Your task to perform on an android device: Open Chrome and go to the settings page Image 0: 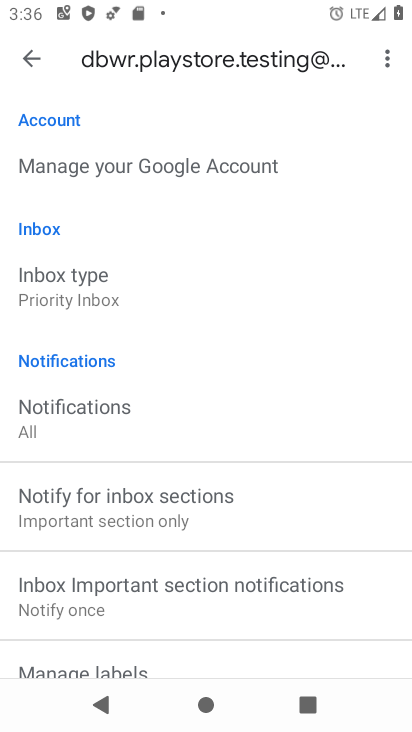
Step 0: press back button
Your task to perform on an android device: Open Chrome and go to the settings page Image 1: 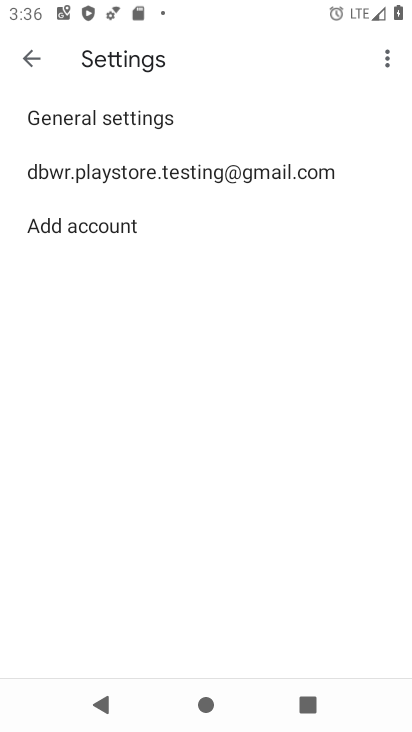
Step 1: press back button
Your task to perform on an android device: Open Chrome and go to the settings page Image 2: 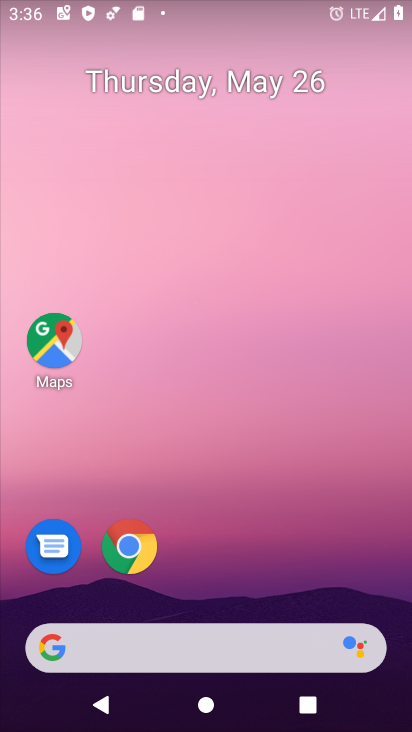
Step 2: drag from (284, 557) to (331, 85)
Your task to perform on an android device: Open Chrome and go to the settings page Image 3: 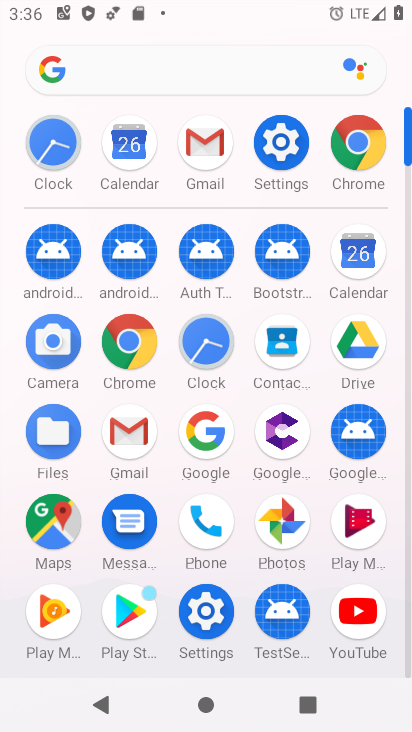
Step 3: click (287, 149)
Your task to perform on an android device: Open Chrome and go to the settings page Image 4: 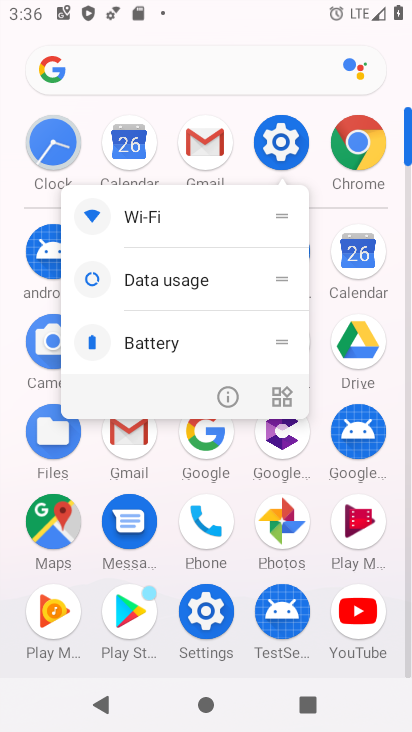
Step 4: click (277, 126)
Your task to perform on an android device: Open Chrome and go to the settings page Image 5: 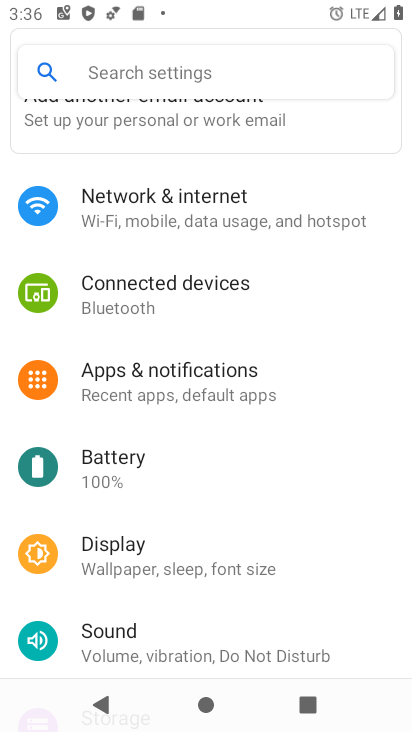
Step 5: press back button
Your task to perform on an android device: Open Chrome and go to the settings page Image 6: 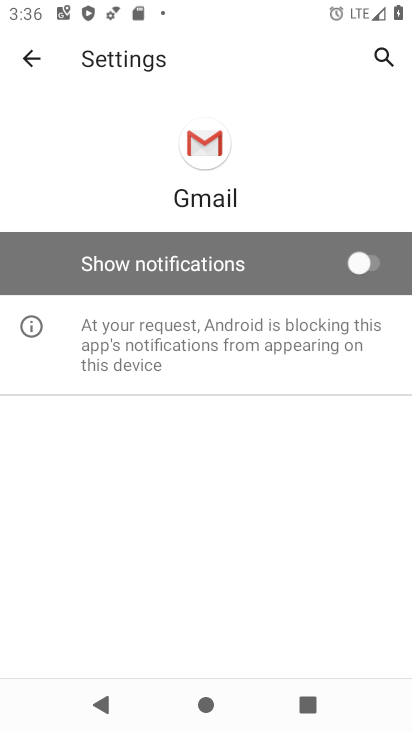
Step 6: press back button
Your task to perform on an android device: Open Chrome and go to the settings page Image 7: 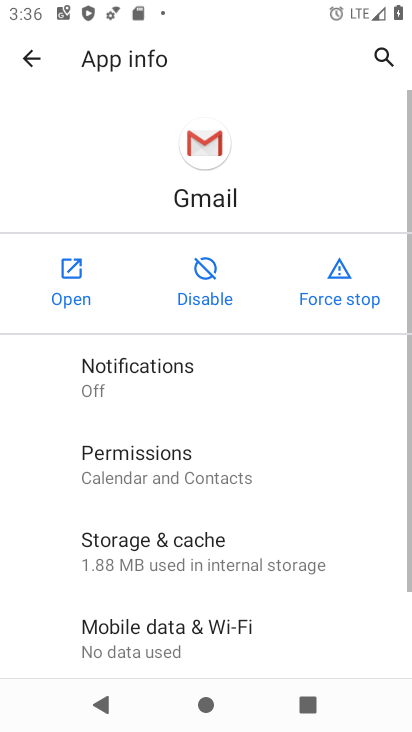
Step 7: press back button
Your task to perform on an android device: Open Chrome and go to the settings page Image 8: 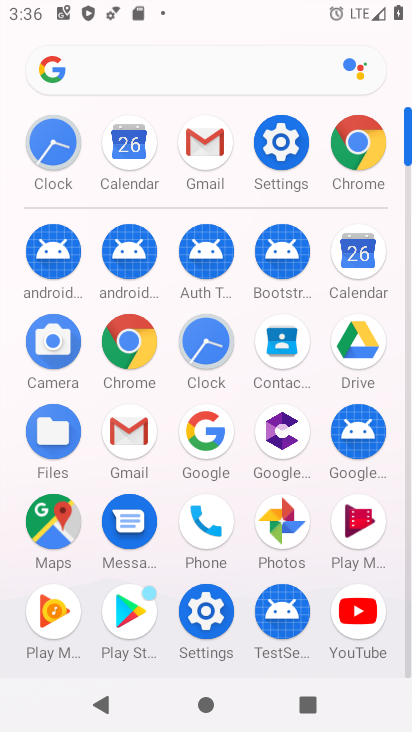
Step 8: click (368, 132)
Your task to perform on an android device: Open Chrome and go to the settings page Image 9: 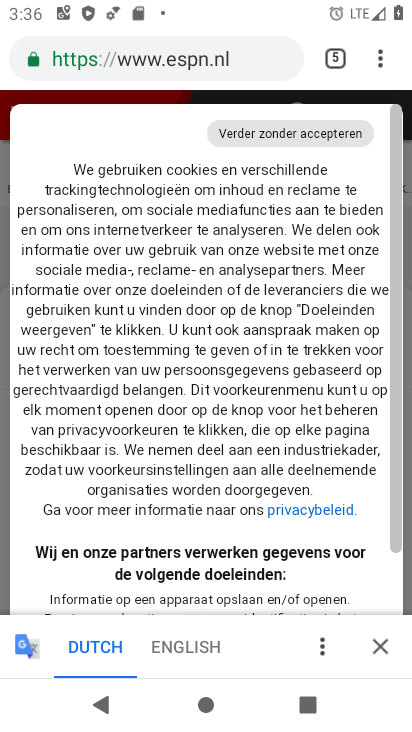
Step 9: task complete